Your task to perform on an android device: Open calendar and show me the third week of next month Image 0: 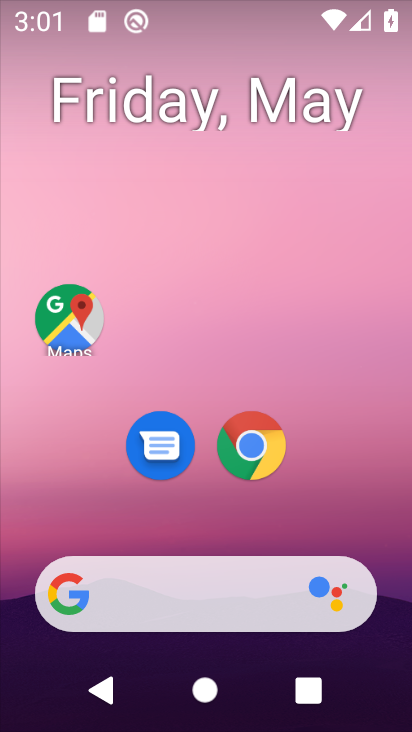
Step 0: drag from (182, 539) to (183, 238)
Your task to perform on an android device: Open calendar and show me the third week of next month Image 1: 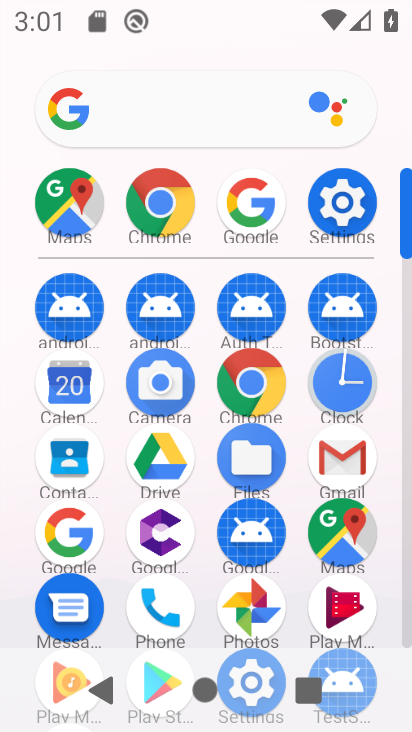
Step 1: click (67, 395)
Your task to perform on an android device: Open calendar and show me the third week of next month Image 2: 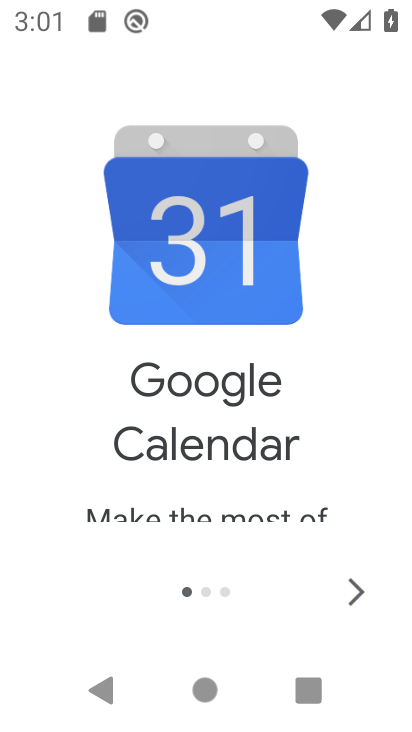
Step 2: click (354, 583)
Your task to perform on an android device: Open calendar and show me the third week of next month Image 3: 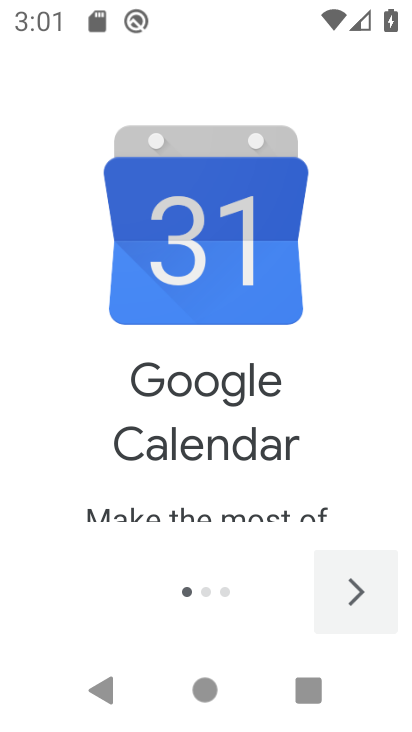
Step 3: click (354, 583)
Your task to perform on an android device: Open calendar and show me the third week of next month Image 4: 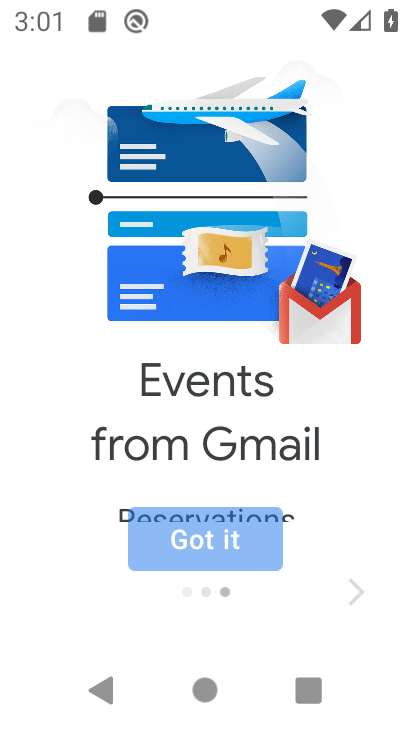
Step 4: click (354, 579)
Your task to perform on an android device: Open calendar and show me the third week of next month Image 5: 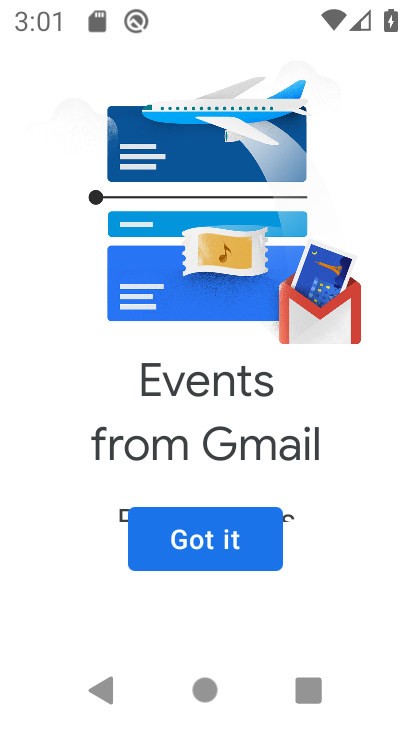
Step 5: click (199, 538)
Your task to perform on an android device: Open calendar and show me the third week of next month Image 6: 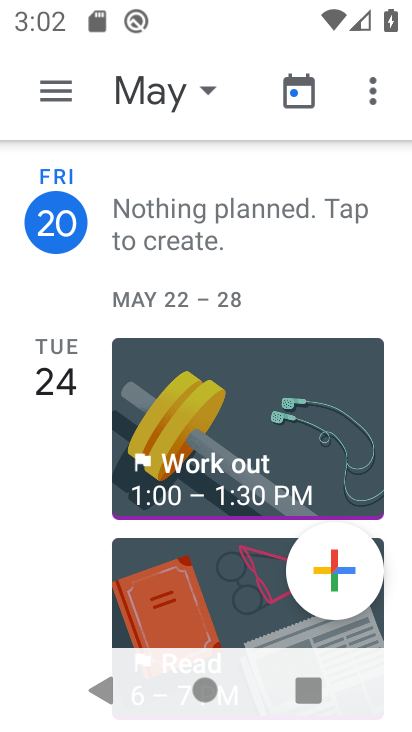
Step 6: drag from (243, 554) to (305, 312)
Your task to perform on an android device: Open calendar and show me the third week of next month Image 7: 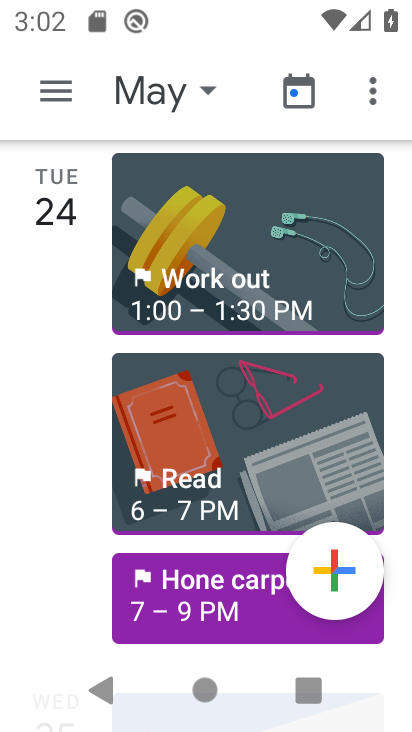
Step 7: click (175, 81)
Your task to perform on an android device: Open calendar and show me the third week of next month Image 8: 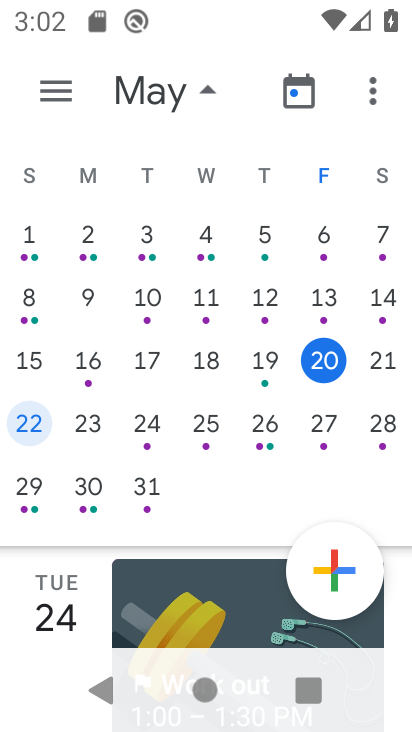
Step 8: drag from (352, 323) to (4, 348)
Your task to perform on an android device: Open calendar and show me the third week of next month Image 9: 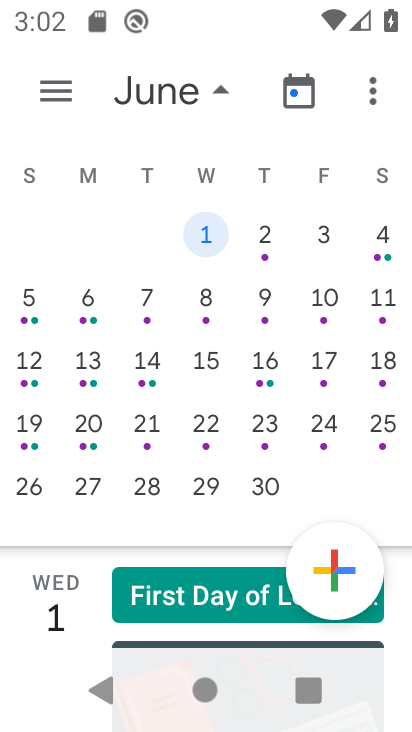
Step 9: click (265, 353)
Your task to perform on an android device: Open calendar and show me the third week of next month Image 10: 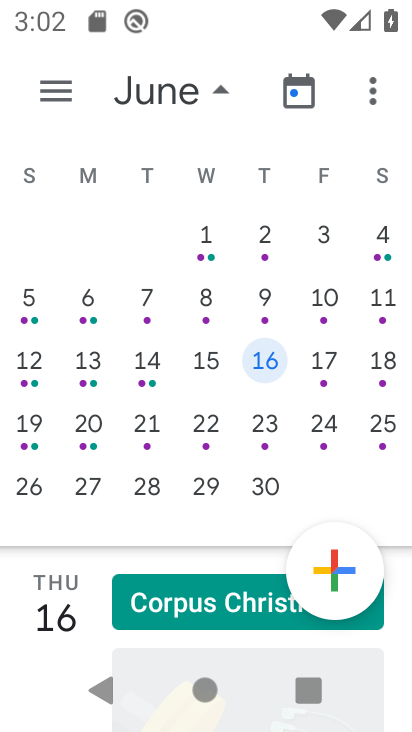
Step 10: task complete